Your task to perform on an android device: Open wifi settings Image 0: 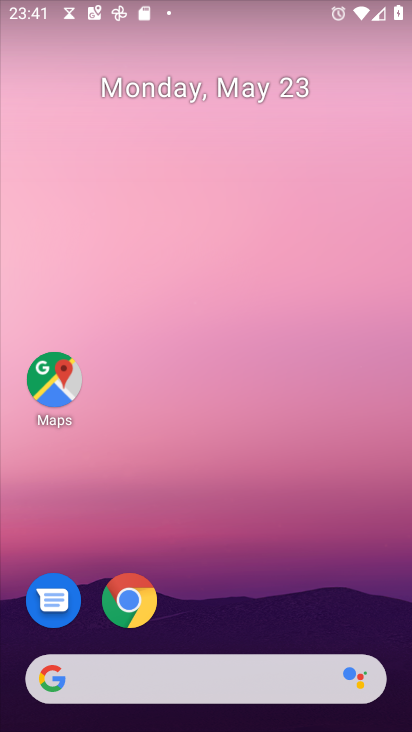
Step 0: drag from (237, 726) to (197, 88)
Your task to perform on an android device: Open wifi settings Image 1: 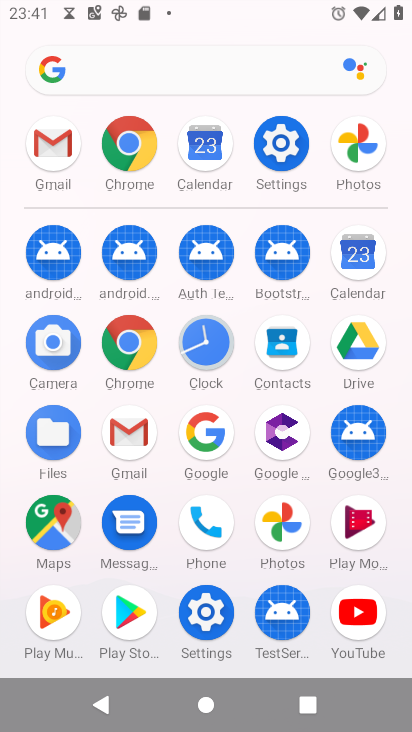
Step 1: click (270, 147)
Your task to perform on an android device: Open wifi settings Image 2: 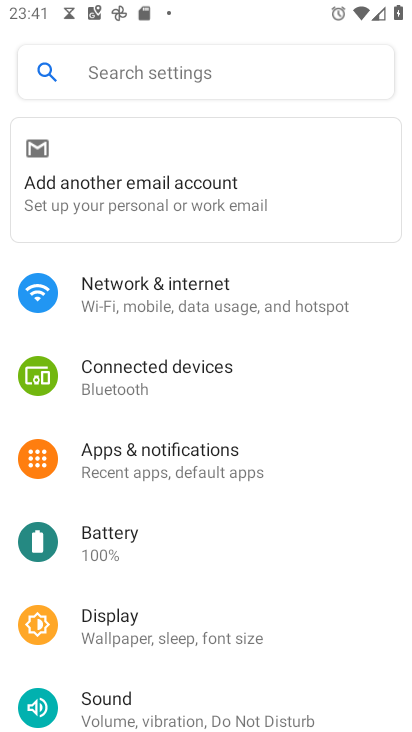
Step 2: click (168, 307)
Your task to perform on an android device: Open wifi settings Image 3: 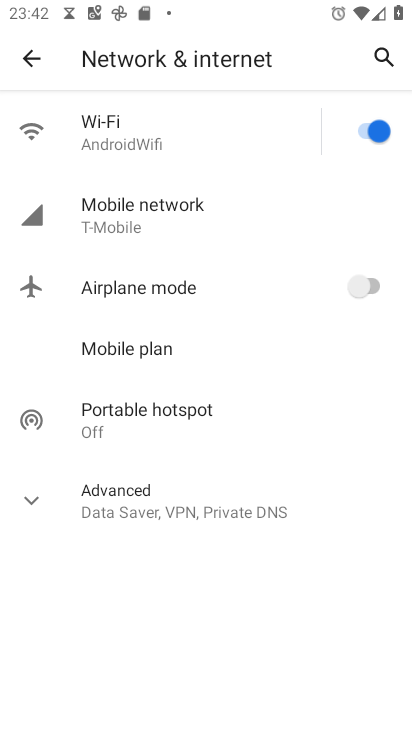
Step 3: click (113, 144)
Your task to perform on an android device: Open wifi settings Image 4: 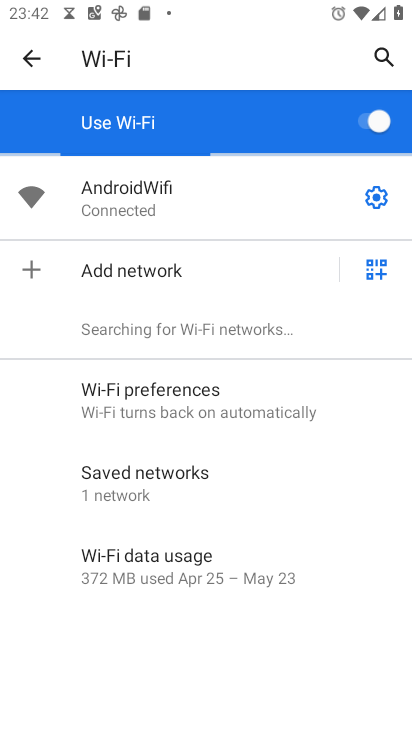
Step 4: task complete